Your task to perform on an android device: Add lenovo thinkpad to the cart on newegg Image 0: 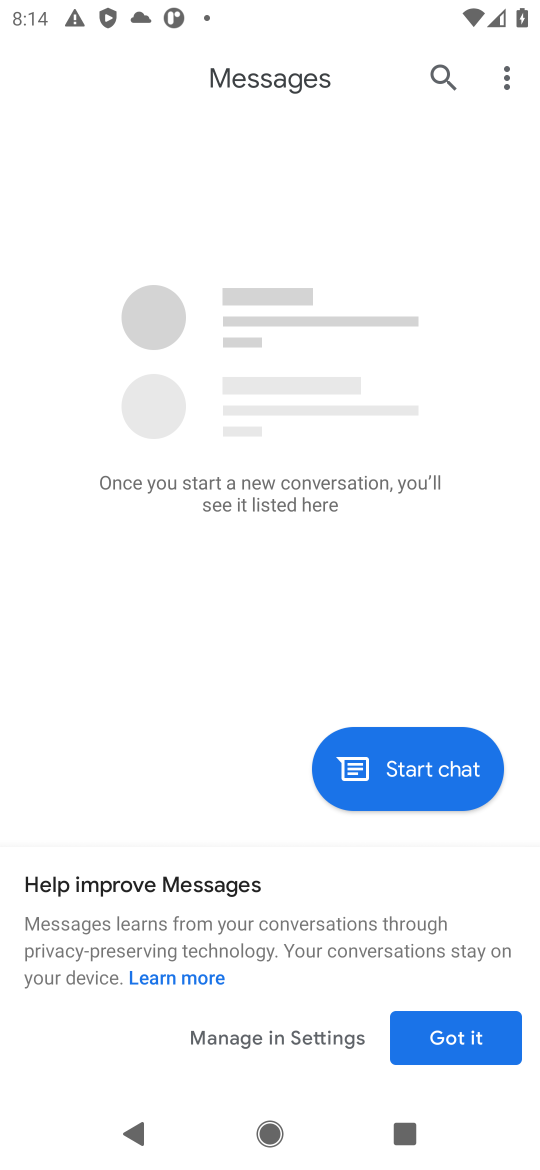
Step 0: press home button
Your task to perform on an android device: Add lenovo thinkpad to the cart on newegg Image 1: 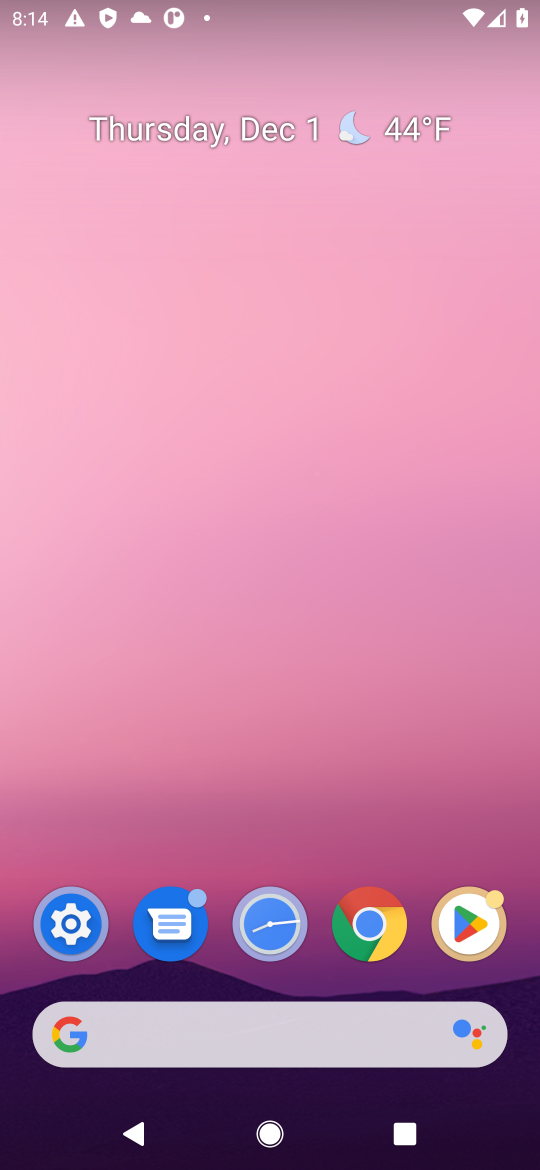
Step 1: click (371, 1033)
Your task to perform on an android device: Add lenovo thinkpad to the cart on newegg Image 2: 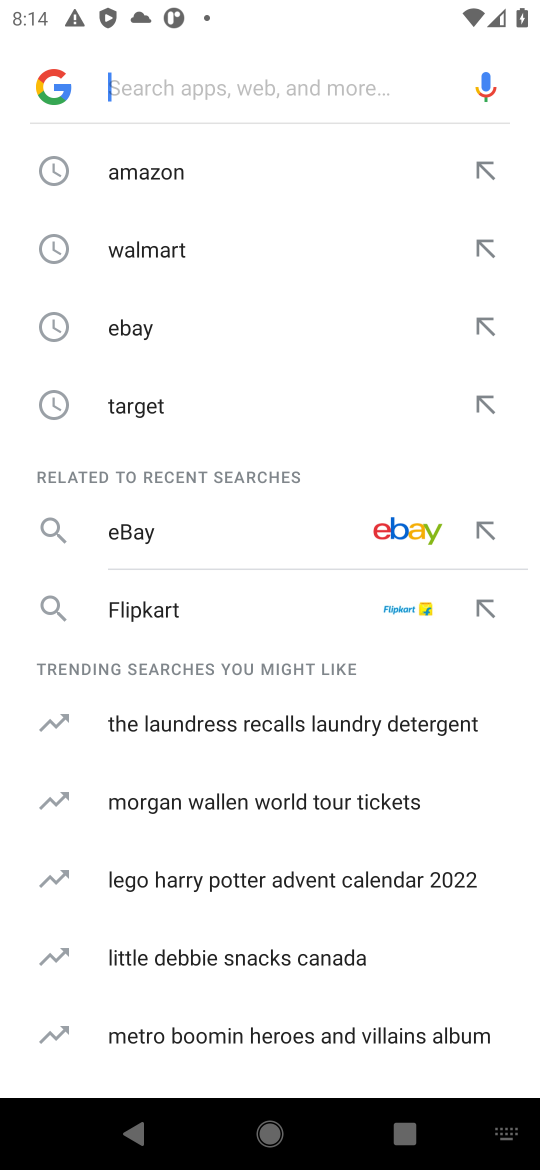
Step 2: type "newegg"
Your task to perform on an android device: Add lenovo thinkpad to the cart on newegg Image 3: 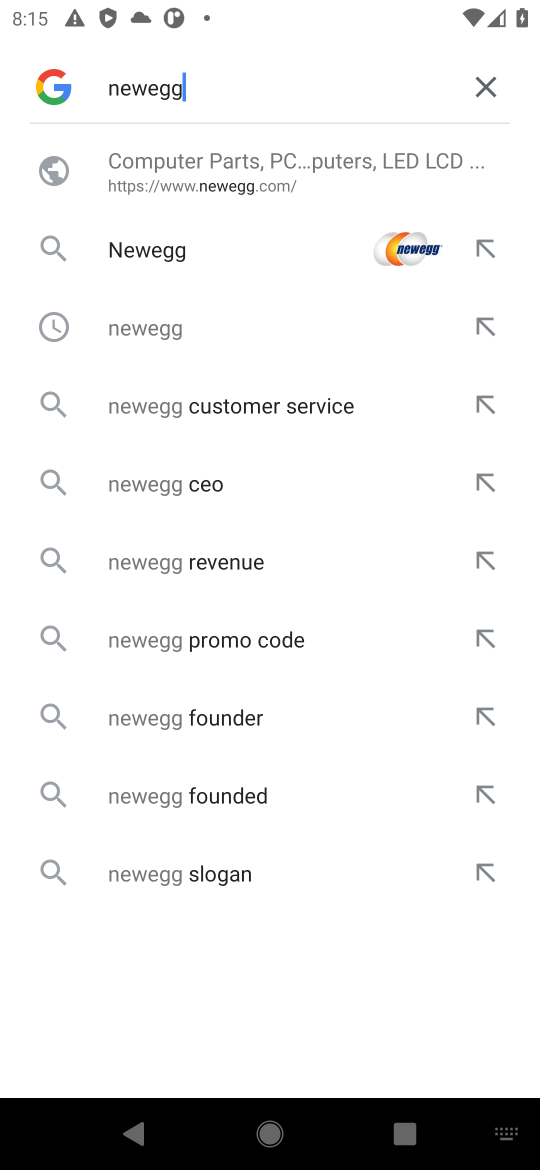
Step 3: click (192, 264)
Your task to perform on an android device: Add lenovo thinkpad to the cart on newegg Image 4: 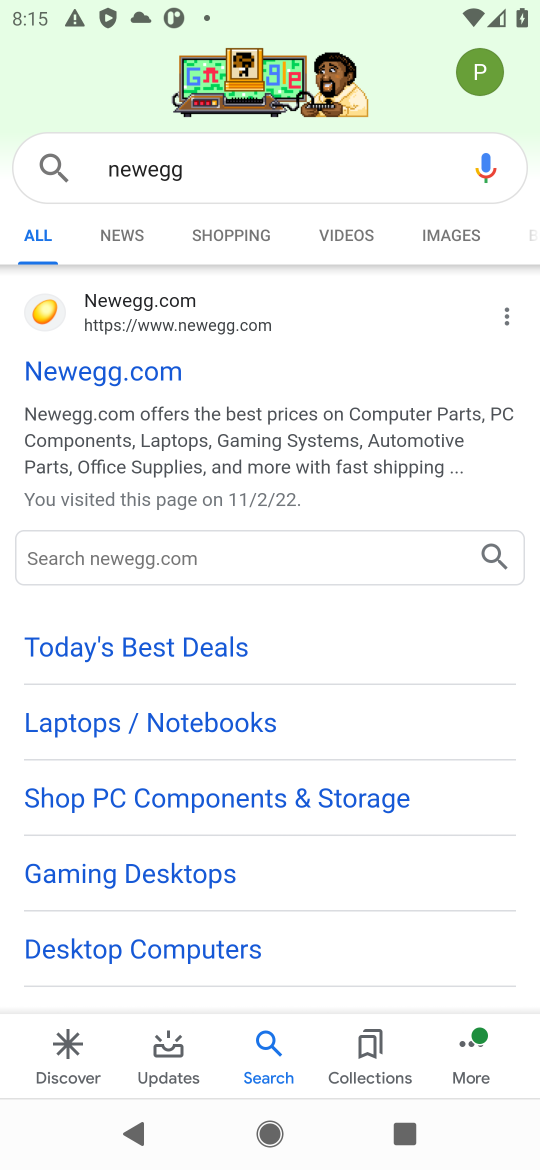
Step 4: click (68, 358)
Your task to perform on an android device: Add lenovo thinkpad to the cart on newegg Image 5: 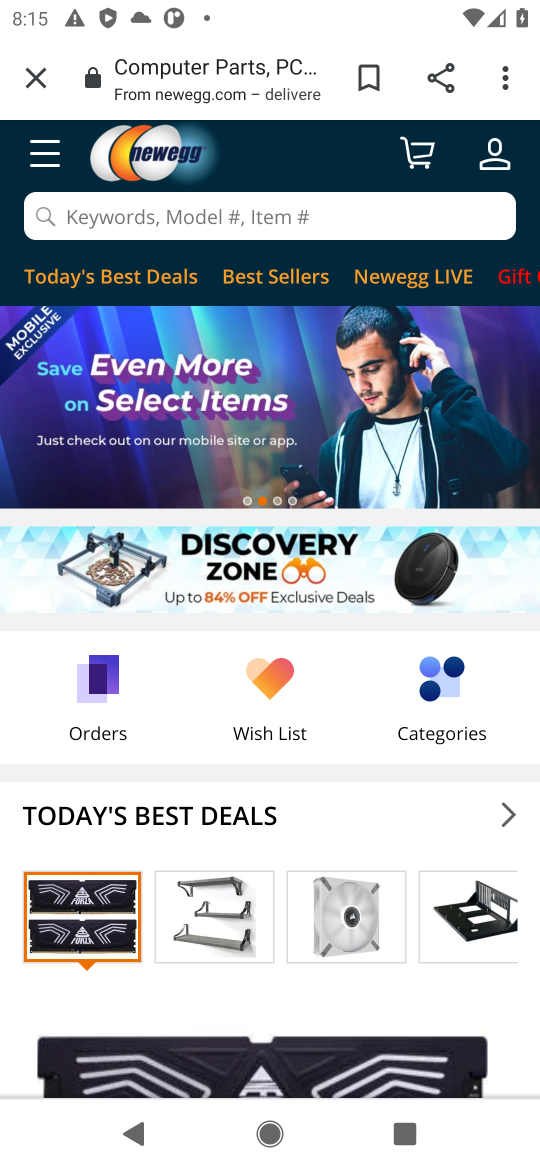
Step 5: click (311, 199)
Your task to perform on an android device: Add lenovo thinkpad to the cart on newegg Image 6: 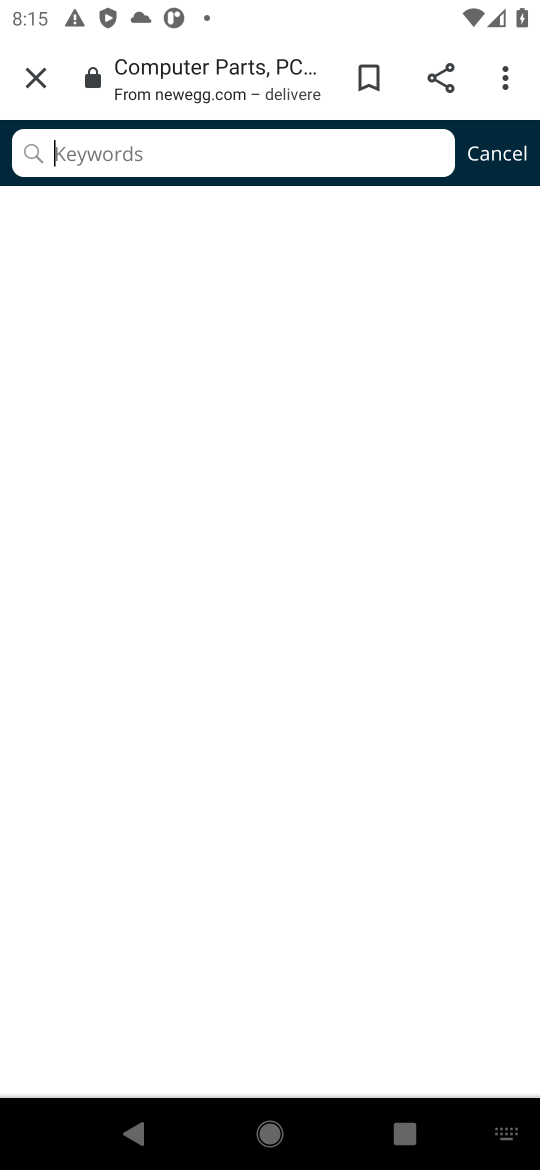
Step 6: type "lenovo thinkpad"
Your task to perform on an android device: Add lenovo thinkpad to the cart on newegg Image 7: 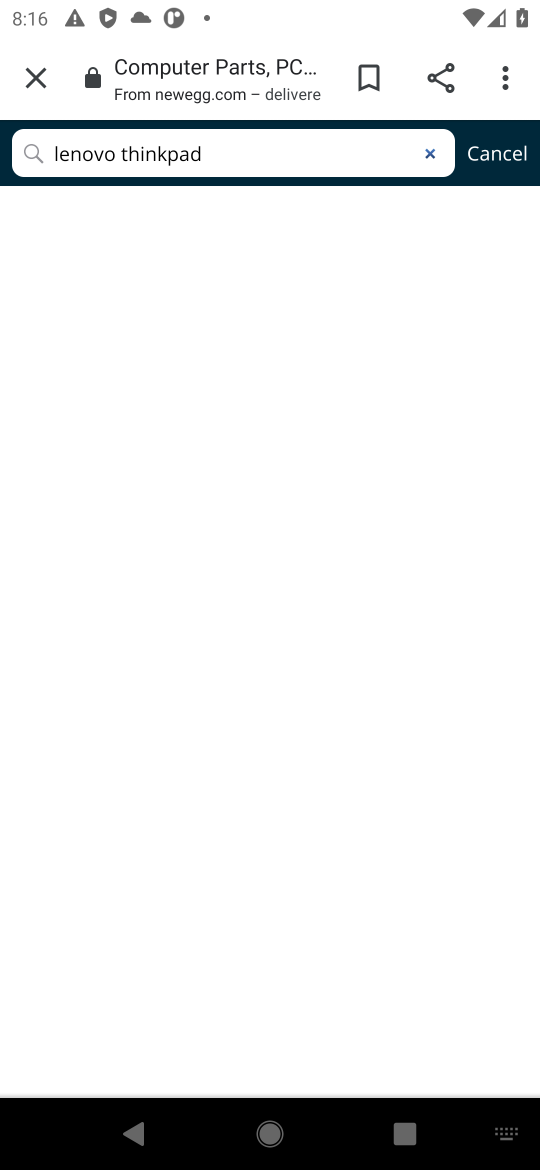
Step 7: task complete